Your task to perform on an android device: Open location settings Image 0: 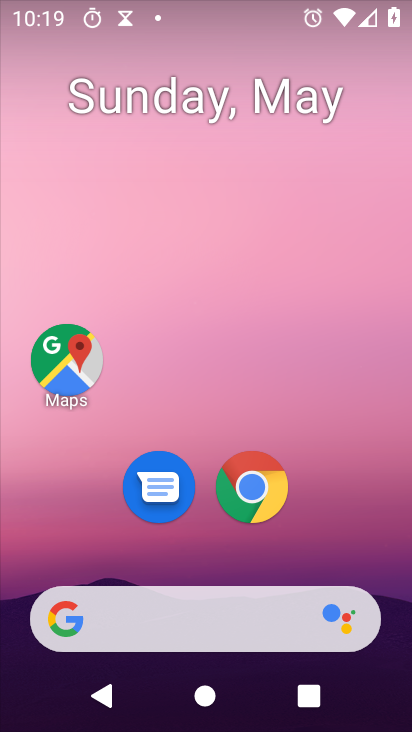
Step 0: drag from (355, 500) to (363, 40)
Your task to perform on an android device: Open location settings Image 1: 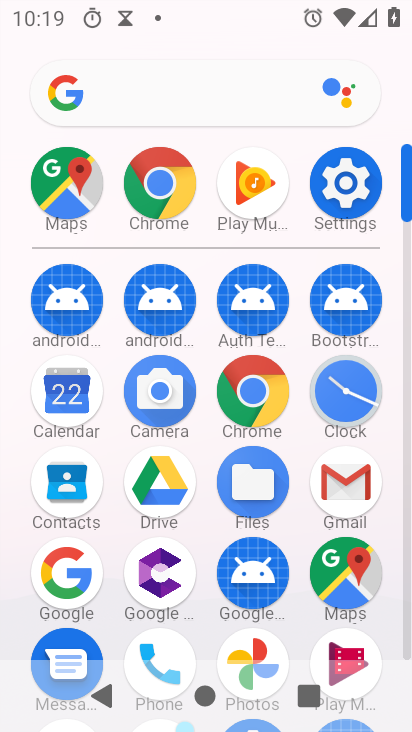
Step 1: click (341, 159)
Your task to perform on an android device: Open location settings Image 2: 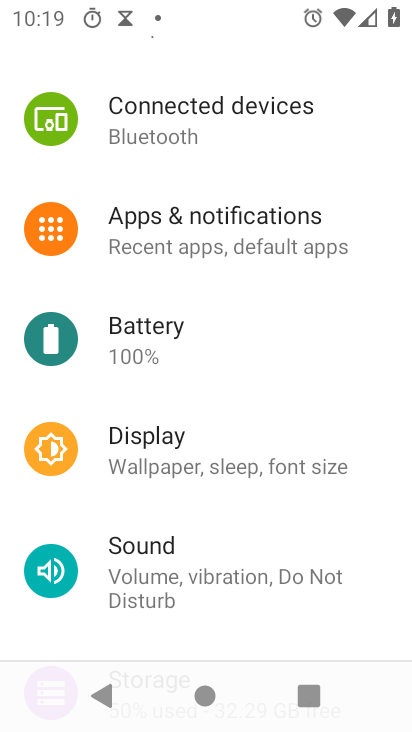
Step 2: drag from (187, 586) to (243, 172)
Your task to perform on an android device: Open location settings Image 3: 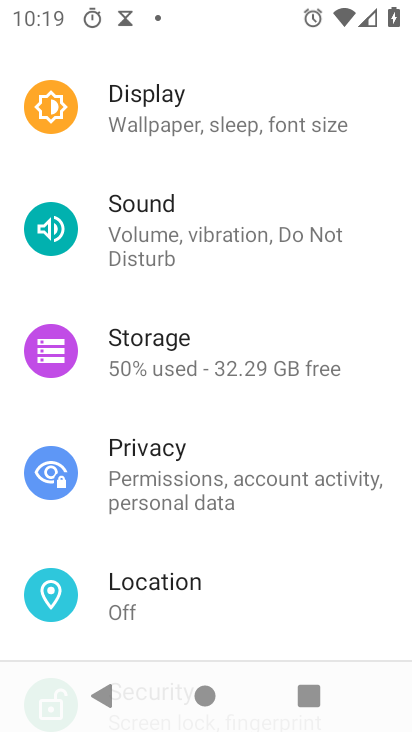
Step 3: click (196, 595)
Your task to perform on an android device: Open location settings Image 4: 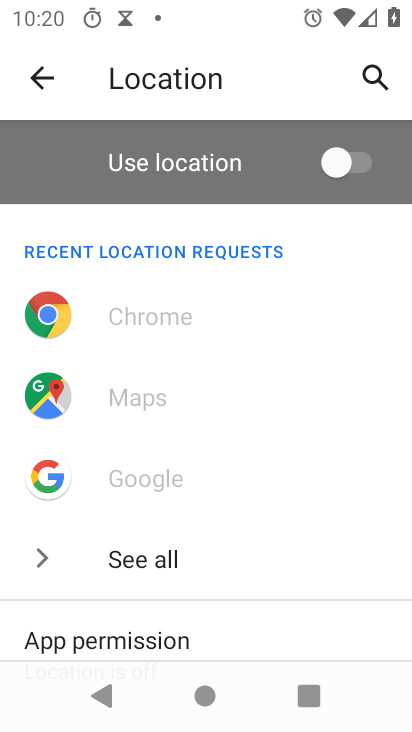
Step 4: task complete